Your task to perform on an android device: turn off notifications settings in the gmail app Image 0: 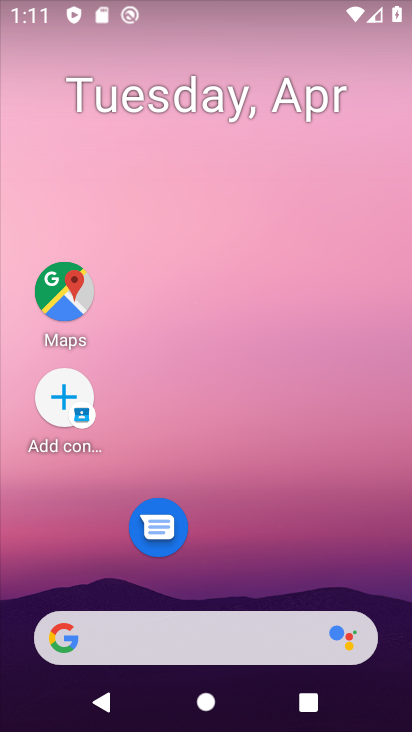
Step 0: drag from (242, 562) to (390, 21)
Your task to perform on an android device: turn off notifications settings in the gmail app Image 1: 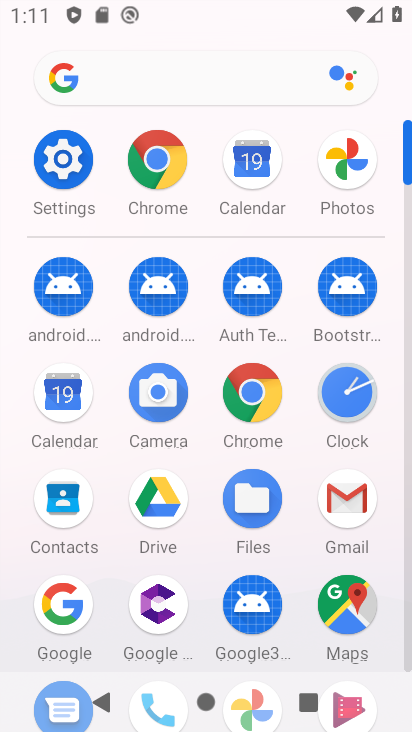
Step 1: drag from (305, 495) to (313, 405)
Your task to perform on an android device: turn off notifications settings in the gmail app Image 2: 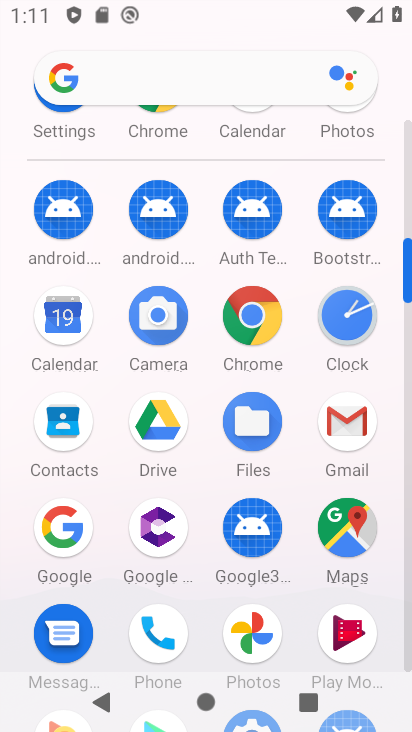
Step 2: click (362, 417)
Your task to perform on an android device: turn off notifications settings in the gmail app Image 3: 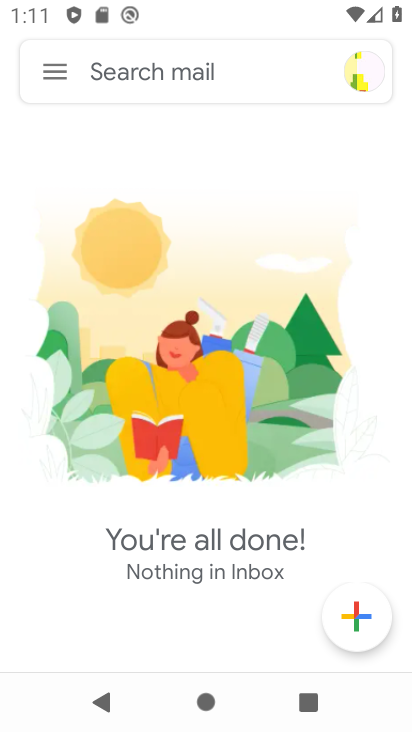
Step 3: click (54, 67)
Your task to perform on an android device: turn off notifications settings in the gmail app Image 4: 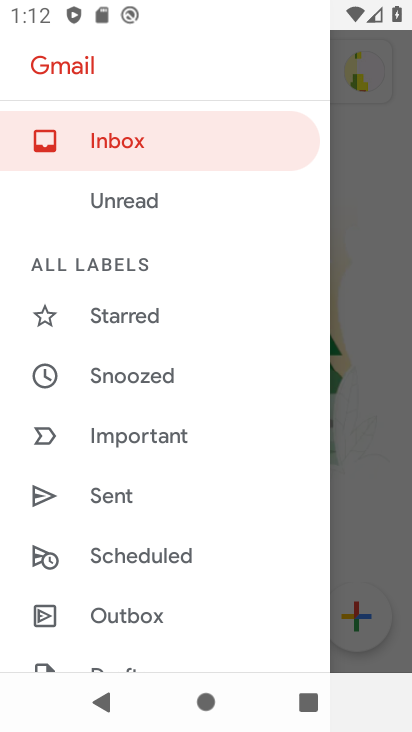
Step 4: drag from (169, 494) to (189, 352)
Your task to perform on an android device: turn off notifications settings in the gmail app Image 5: 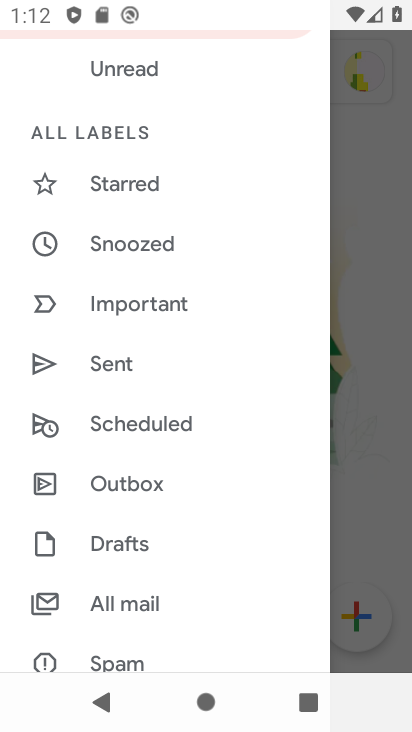
Step 5: drag from (164, 490) to (176, 337)
Your task to perform on an android device: turn off notifications settings in the gmail app Image 6: 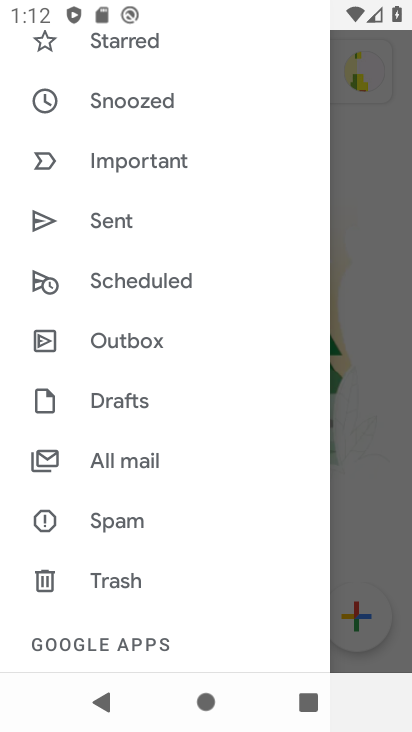
Step 6: drag from (170, 492) to (212, 363)
Your task to perform on an android device: turn off notifications settings in the gmail app Image 7: 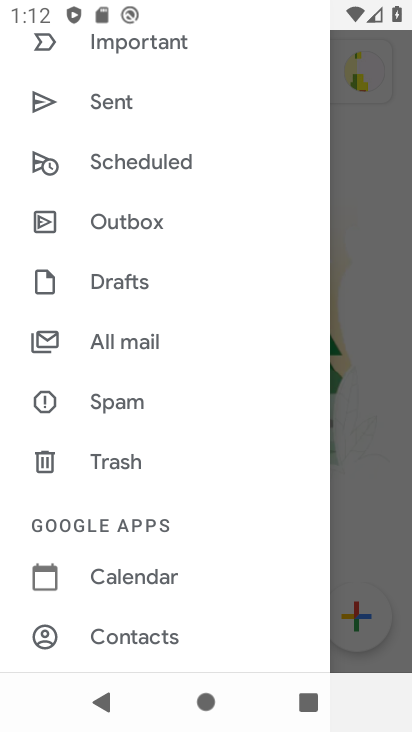
Step 7: drag from (187, 492) to (214, 408)
Your task to perform on an android device: turn off notifications settings in the gmail app Image 8: 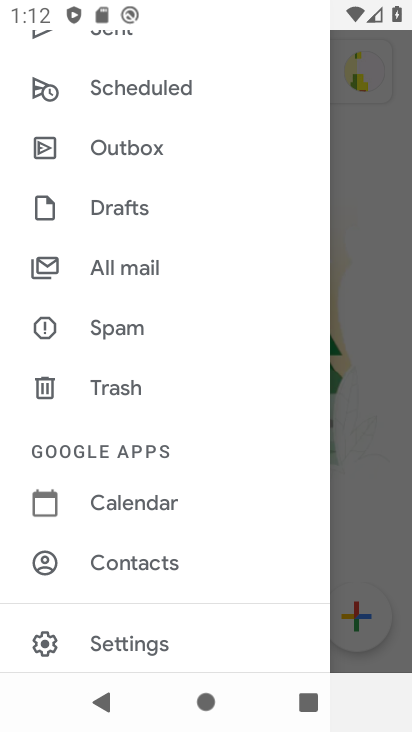
Step 8: drag from (176, 592) to (219, 465)
Your task to perform on an android device: turn off notifications settings in the gmail app Image 9: 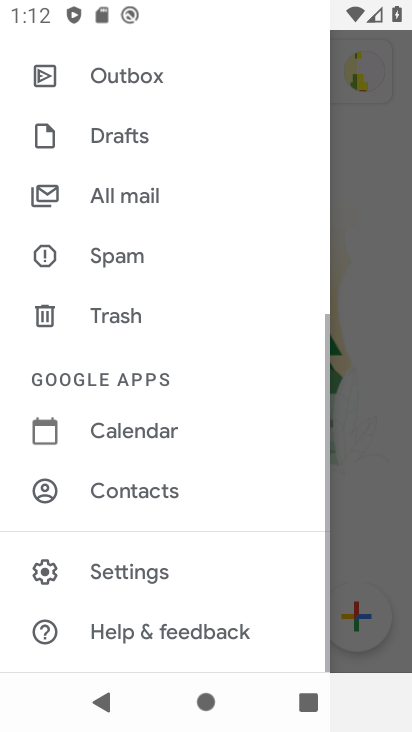
Step 9: click (149, 574)
Your task to perform on an android device: turn off notifications settings in the gmail app Image 10: 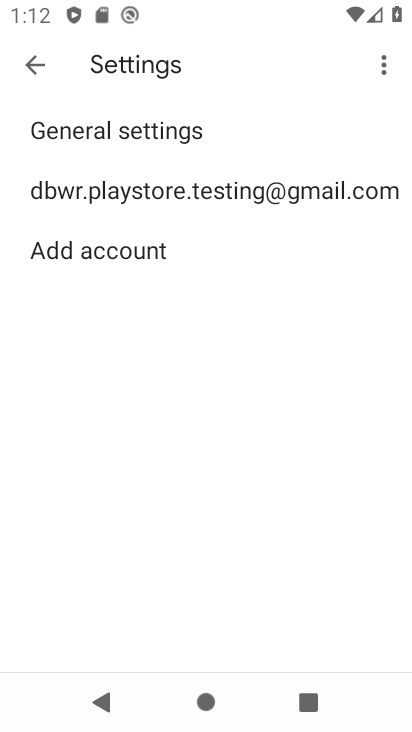
Step 10: click (213, 192)
Your task to perform on an android device: turn off notifications settings in the gmail app Image 11: 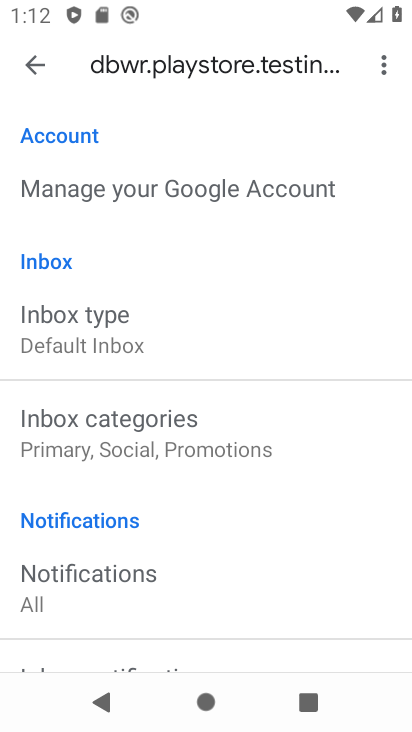
Step 11: drag from (108, 488) to (158, 380)
Your task to perform on an android device: turn off notifications settings in the gmail app Image 12: 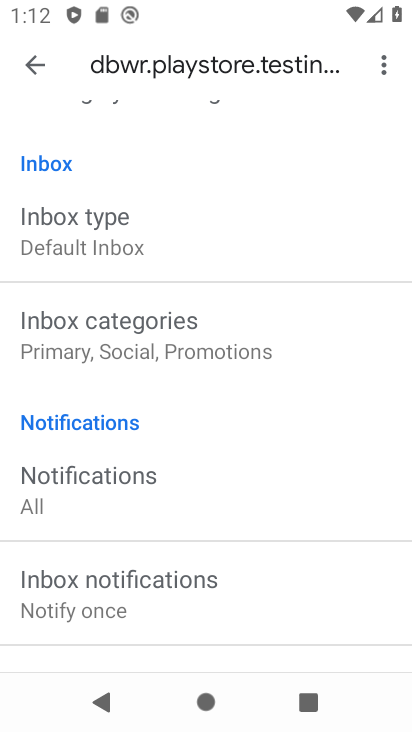
Step 12: drag from (135, 545) to (176, 437)
Your task to perform on an android device: turn off notifications settings in the gmail app Image 13: 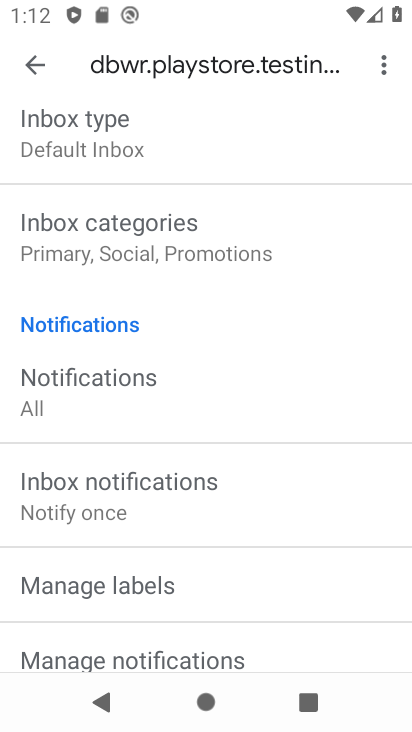
Step 13: drag from (169, 575) to (216, 452)
Your task to perform on an android device: turn off notifications settings in the gmail app Image 14: 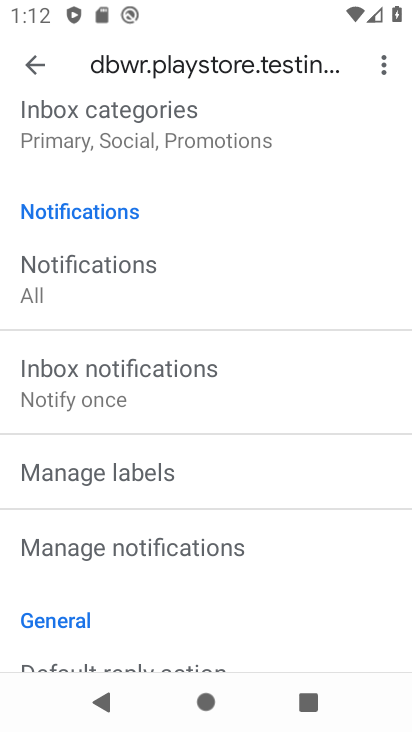
Step 14: click (185, 547)
Your task to perform on an android device: turn off notifications settings in the gmail app Image 15: 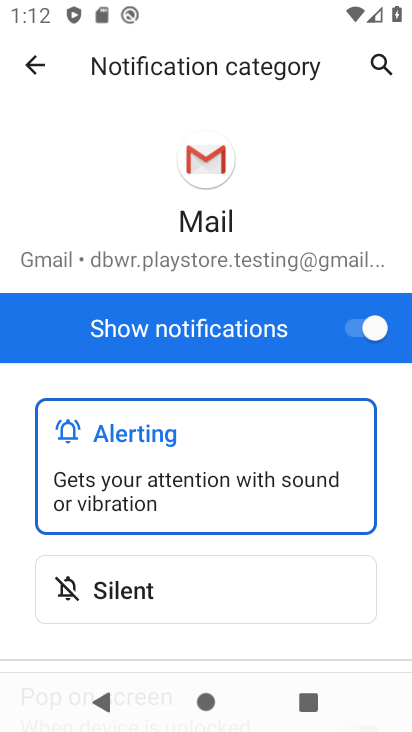
Step 15: click (378, 331)
Your task to perform on an android device: turn off notifications settings in the gmail app Image 16: 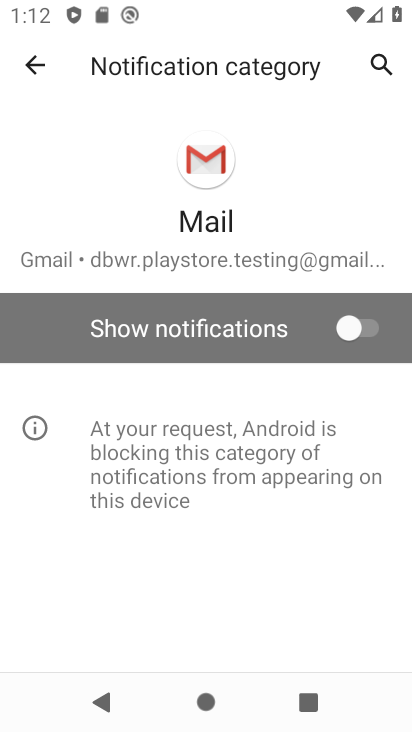
Step 16: task complete